Your task to perform on an android device: check storage Image 0: 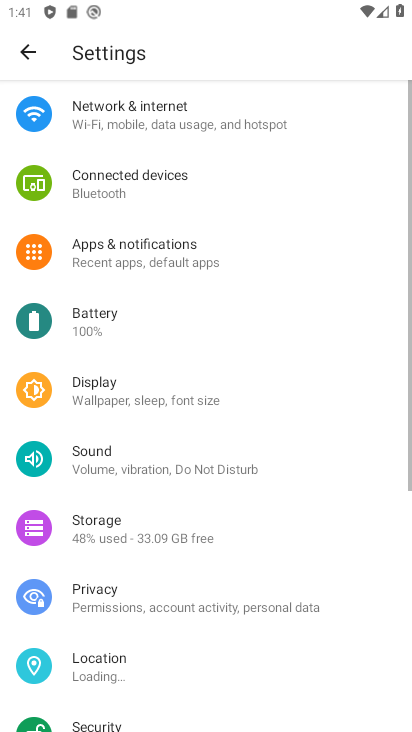
Step 0: click (115, 525)
Your task to perform on an android device: check storage Image 1: 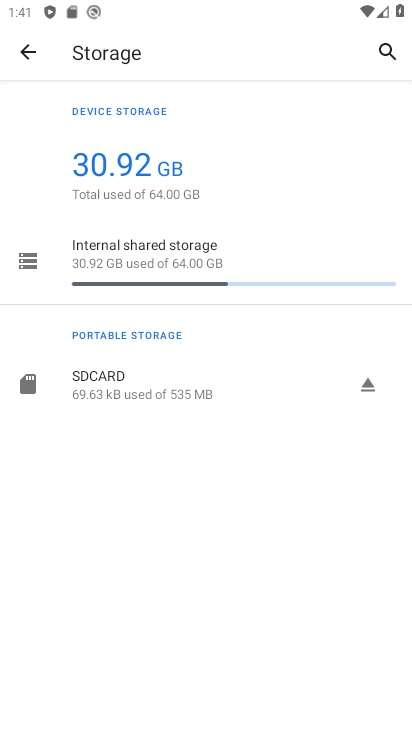
Step 1: task complete